Your task to perform on an android device: turn smart compose on in the gmail app Image 0: 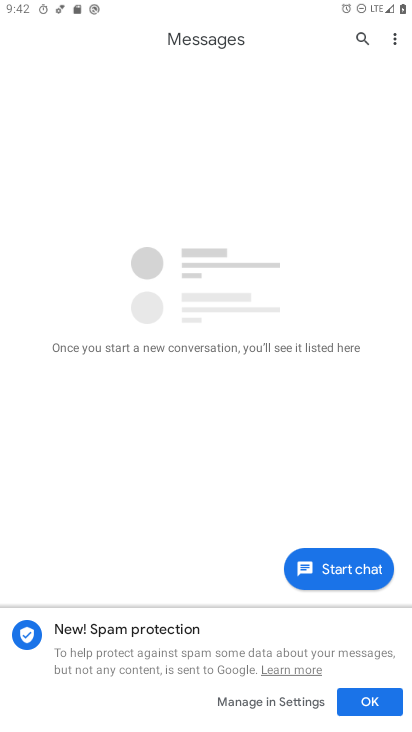
Step 0: press home button
Your task to perform on an android device: turn smart compose on in the gmail app Image 1: 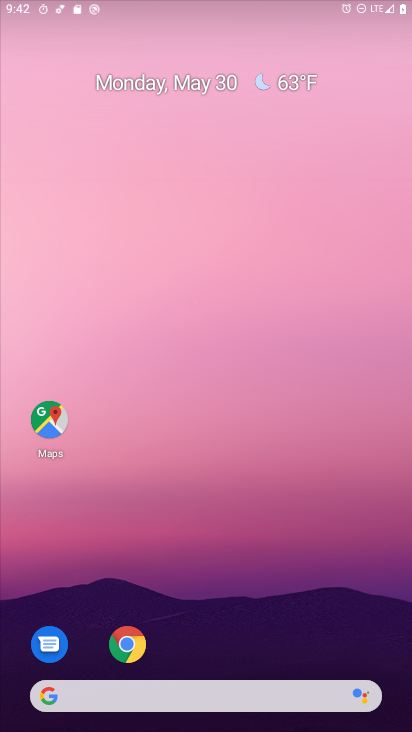
Step 1: drag from (212, 620) to (232, 54)
Your task to perform on an android device: turn smart compose on in the gmail app Image 2: 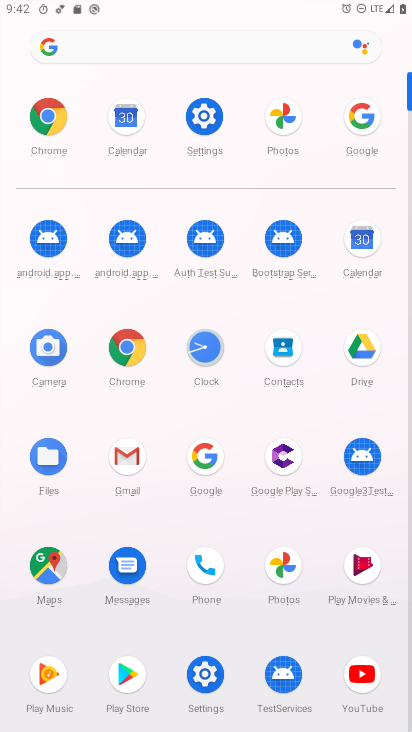
Step 2: click (124, 464)
Your task to perform on an android device: turn smart compose on in the gmail app Image 3: 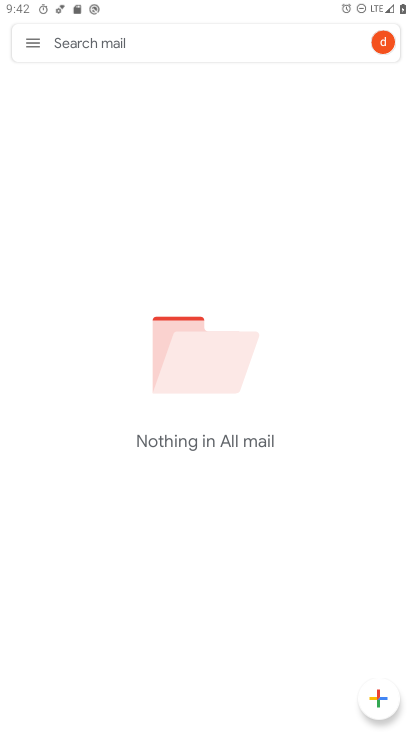
Step 3: click (38, 43)
Your task to perform on an android device: turn smart compose on in the gmail app Image 4: 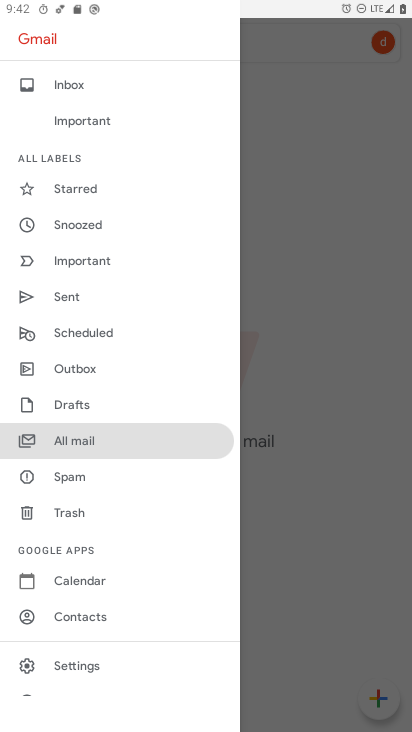
Step 4: click (87, 668)
Your task to perform on an android device: turn smart compose on in the gmail app Image 5: 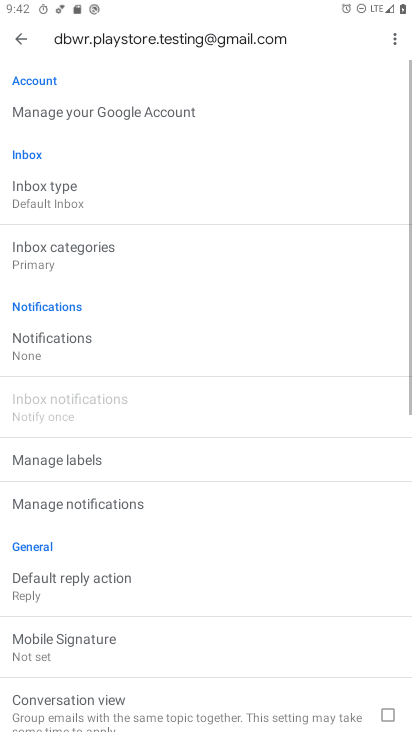
Step 5: task complete